Your task to perform on an android device: When is my next appointment? Image 0: 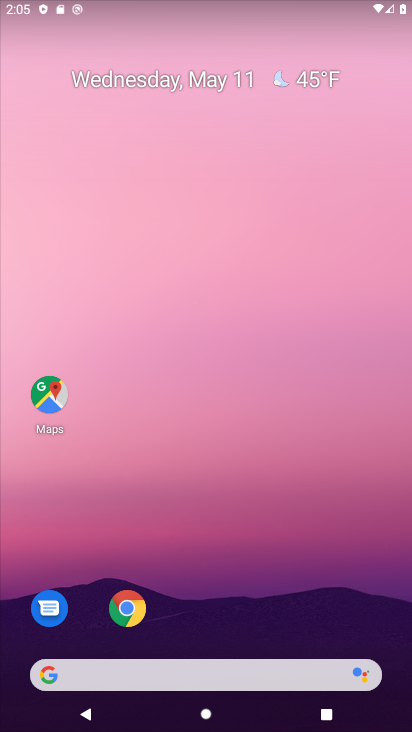
Step 0: drag from (247, 589) to (245, 97)
Your task to perform on an android device: When is my next appointment? Image 1: 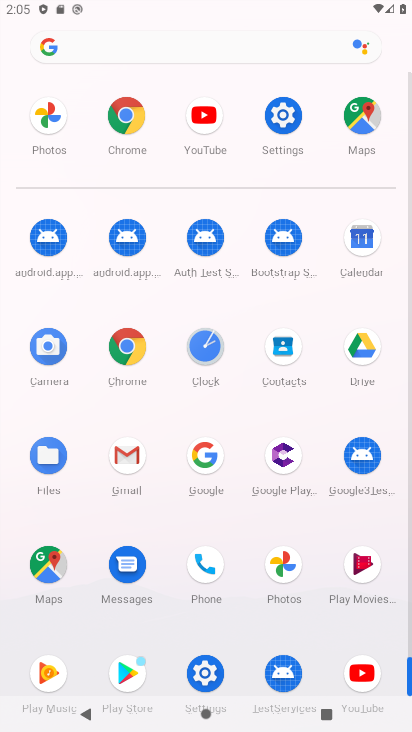
Step 1: click (363, 238)
Your task to perform on an android device: When is my next appointment? Image 2: 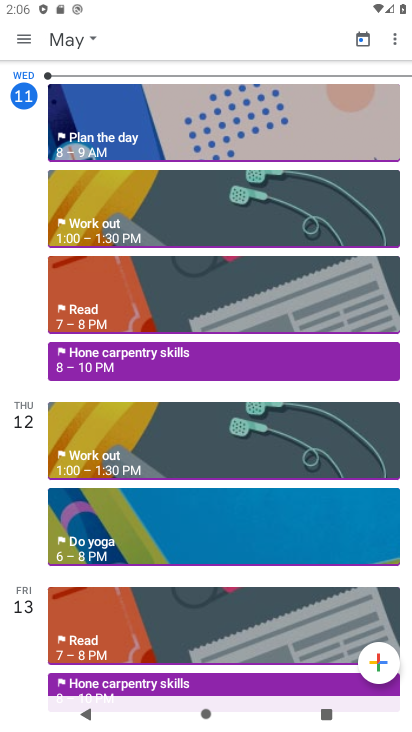
Step 2: click (79, 42)
Your task to perform on an android device: When is my next appointment? Image 3: 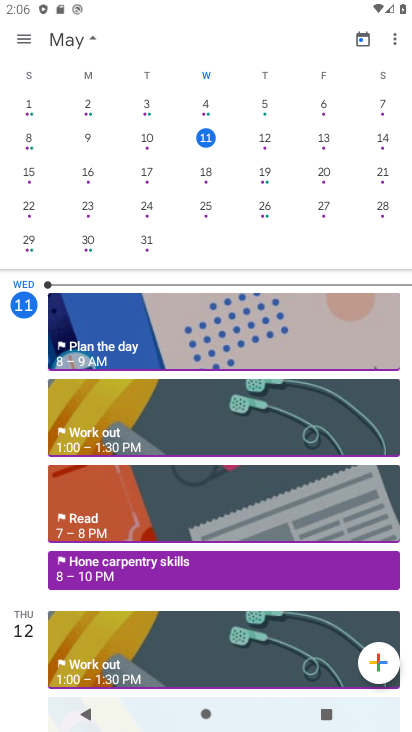
Step 3: click (266, 172)
Your task to perform on an android device: When is my next appointment? Image 4: 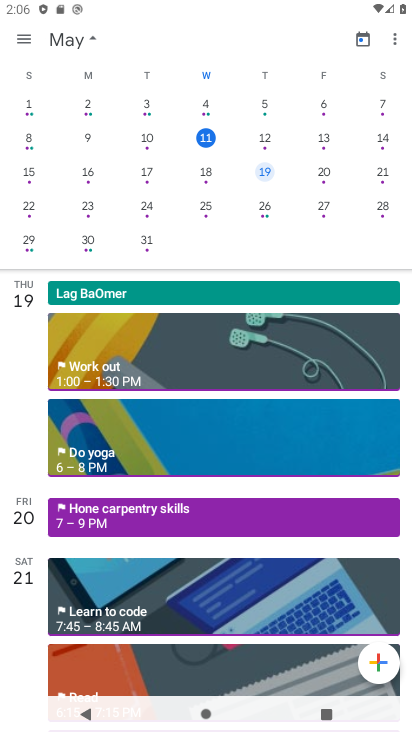
Step 4: task complete